Your task to perform on an android device: manage bookmarks in the chrome app Image 0: 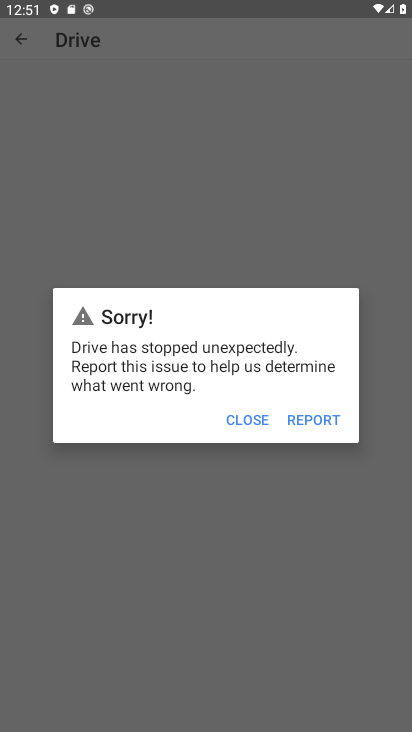
Step 0: press home button
Your task to perform on an android device: manage bookmarks in the chrome app Image 1: 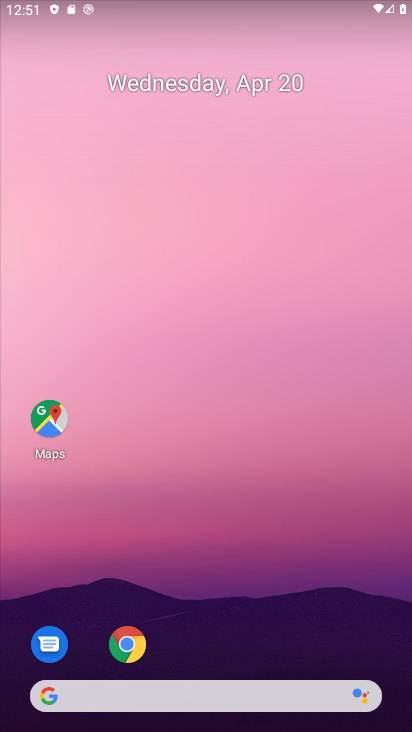
Step 1: click (125, 647)
Your task to perform on an android device: manage bookmarks in the chrome app Image 2: 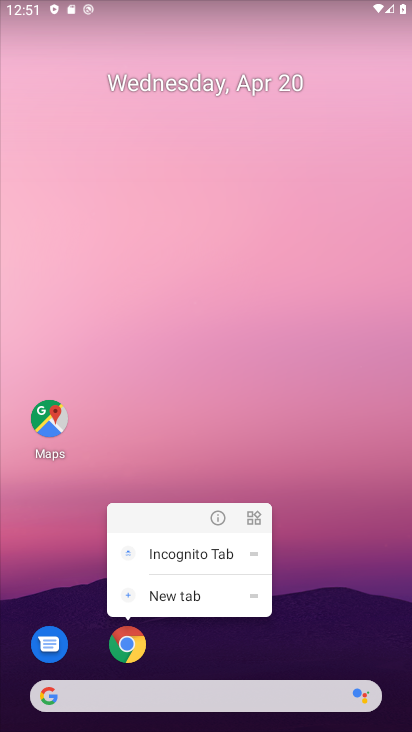
Step 2: click (130, 640)
Your task to perform on an android device: manage bookmarks in the chrome app Image 3: 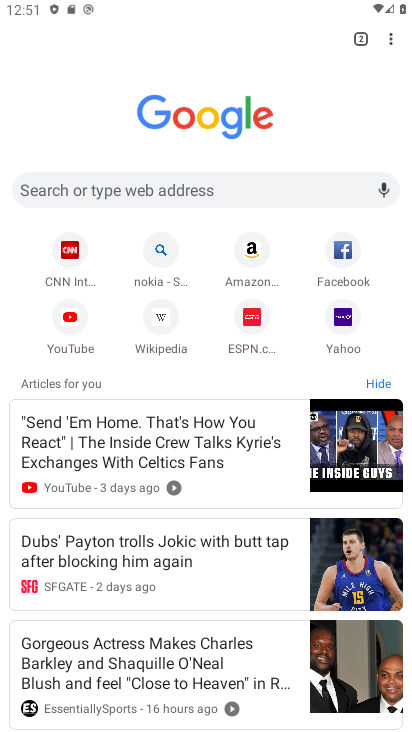
Step 3: click (388, 35)
Your task to perform on an android device: manage bookmarks in the chrome app Image 4: 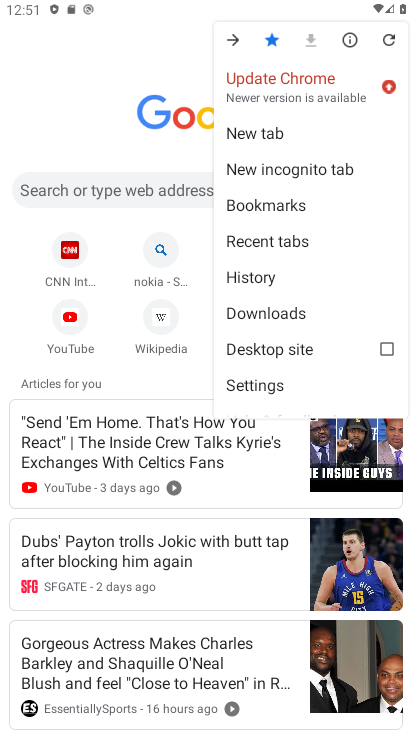
Step 4: click (309, 199)
Your task to perform on an android device: manage bookmarks in the chrome app Image 5: 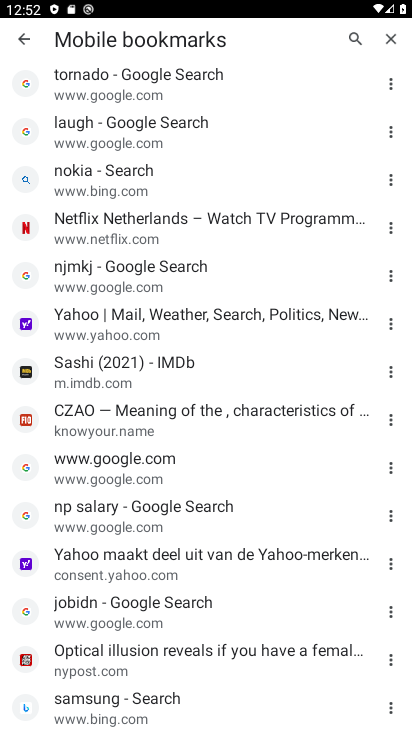
Step 5: click (391, 182)
Your task to perform on an android device: manage bookmarks in the chrome app Image 6: 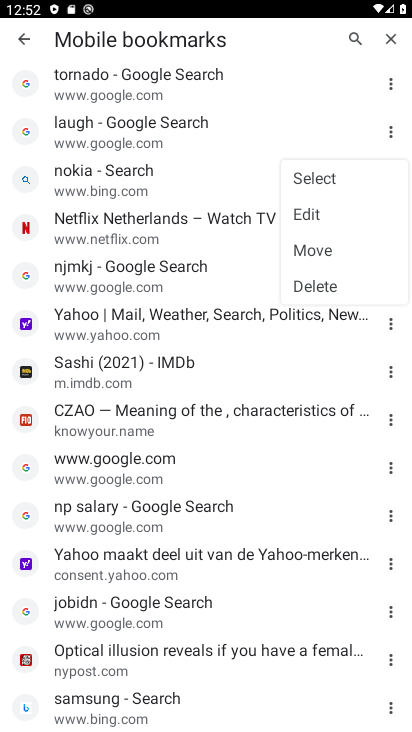
Step 6: click (335, 209)
Your task to perform on an android device: manage bookmarks in the chrome app Image 7: 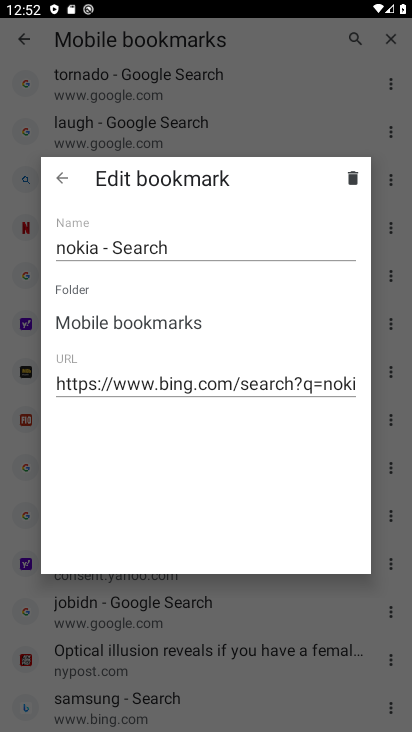
Step 7: click (65, 172)
Your task to perform on an android device: manage bookmarks in the chrome app Image 8: 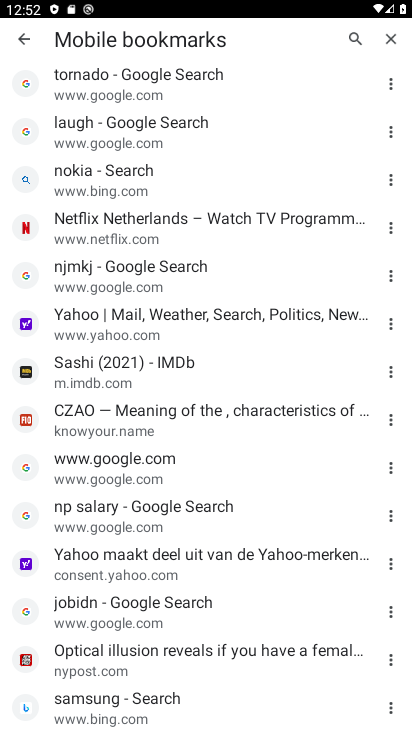
Step 8: task complete